Your task to perform on an android device: Search for Mexican restaurants on Maps Image 0: 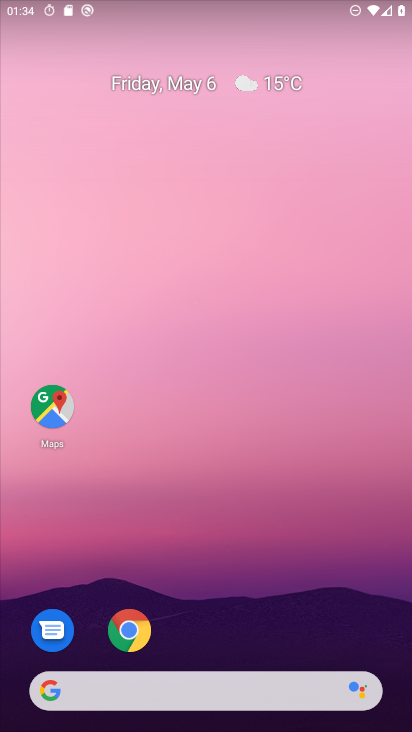
Step 0: press home button
Your task to perform on an android device: Search for Mexican restaurants on Maps Image 1: 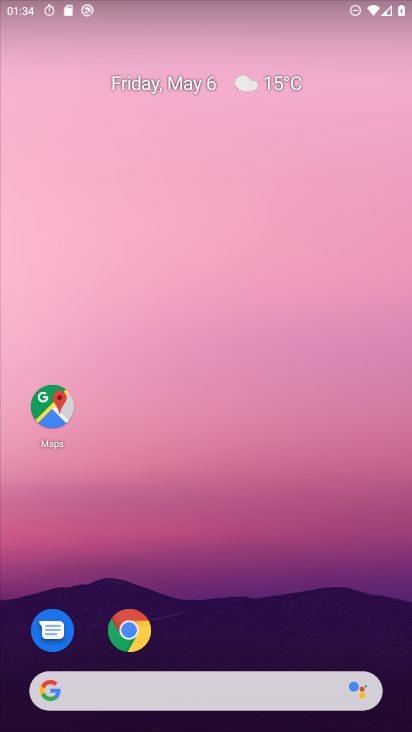
Step 1: click (48, 404)
Your task to perform on an android device: Search for Mexican restaurants on Maps Image 2: 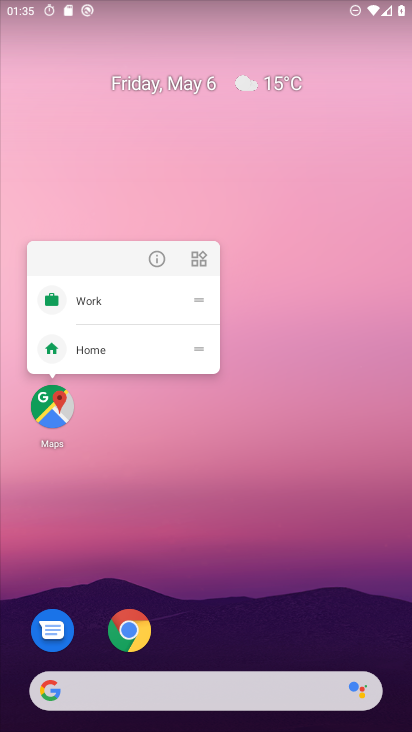
Step 2: click (44, 399)
Your task to perform on an android device: Search for Mexican restaurants on Maps Image 3: 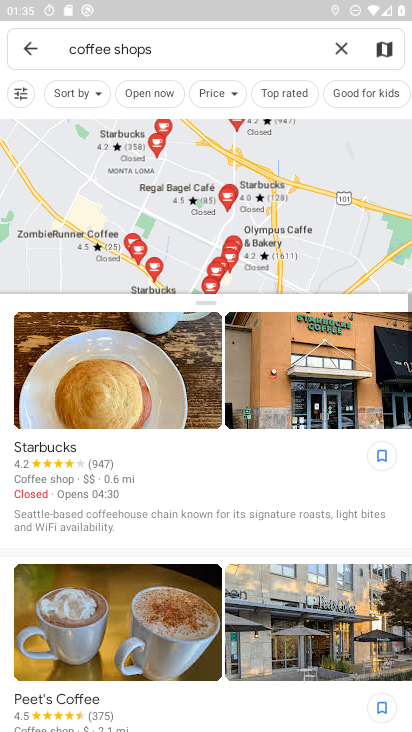
Step 3: click (210, 49)
Your task to perform on an android device: Search for Mexican restaurants on Maps Image 4: 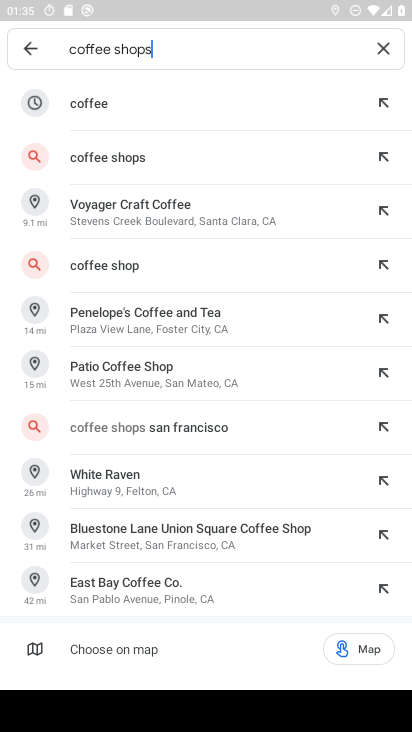
Step 4: click (385, 46)
Your task to perform on an android device: Search for Mexican restaurants on Maps Image 5: 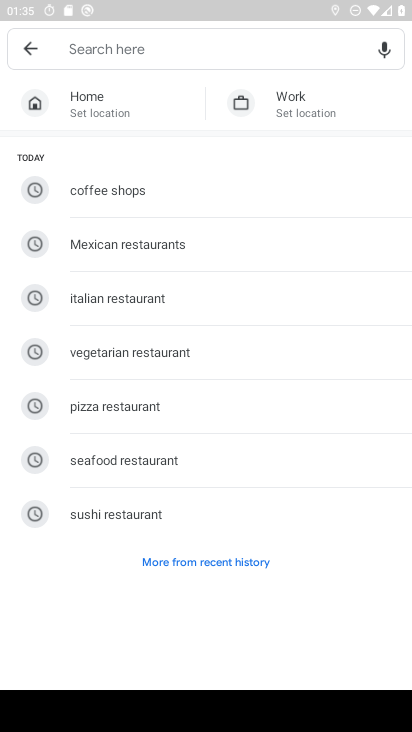
Step 5: click (205, 237)
Your task to perform on an android device: Search for Mexican restaurants on Maps Image 6: 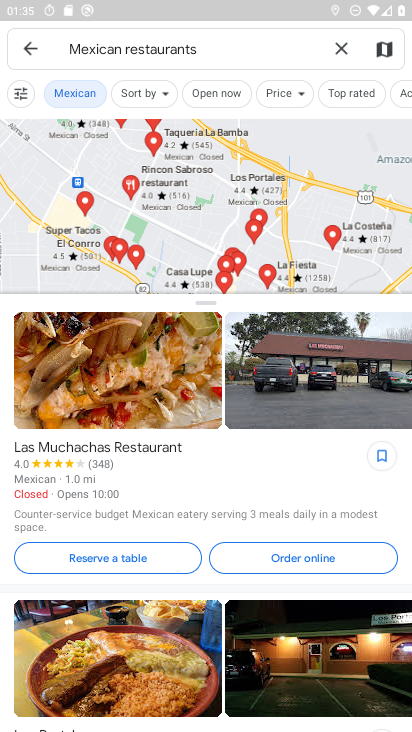
Step 6: task complete